Your task to perform on an android device: change text size in settings app Image 0: 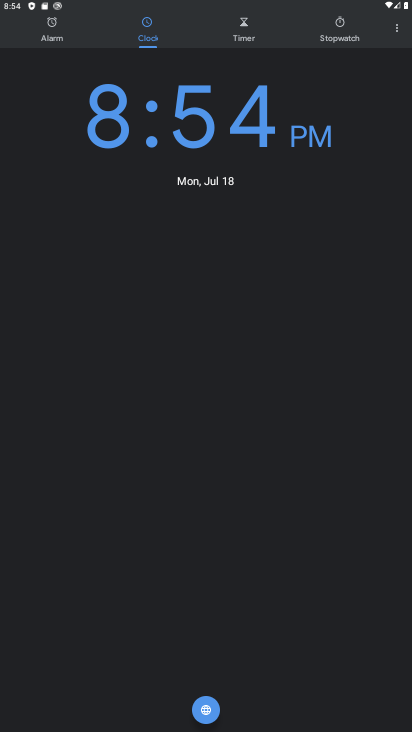
Step 0: press home button
Your task to perform on an android device: change text size in settings app Image 1: 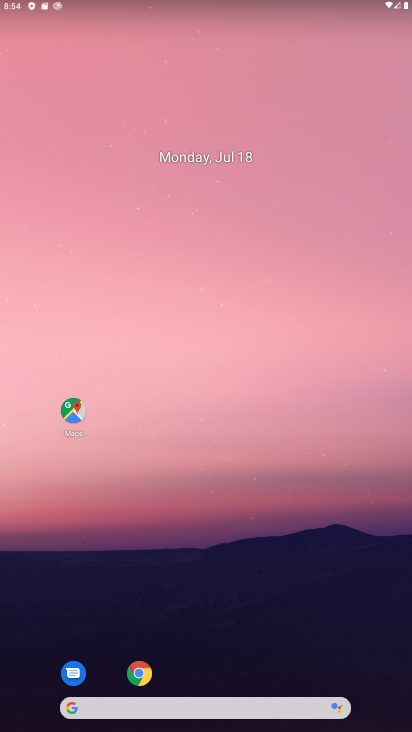
Step 1: drag from (220, 716) to (258, 167)
Your task to perform on an android device: change text size in settings app Image 2: 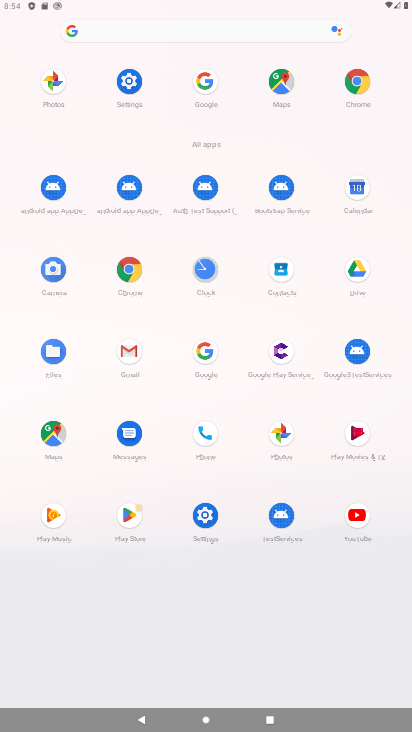
Step 2: click (209, 529)
Your task to perform on an android device: change text size in settings app Image 3: 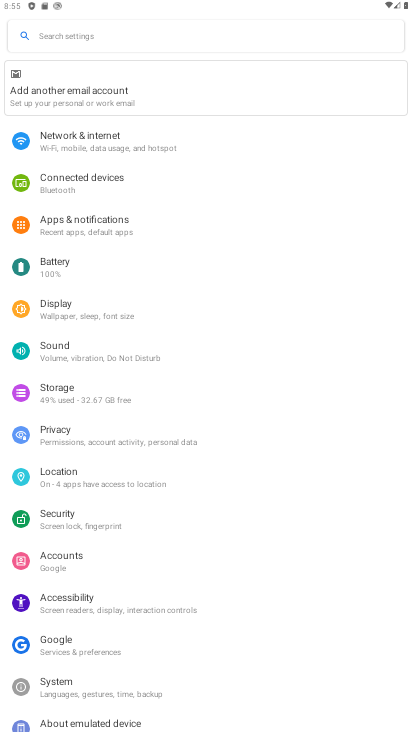
Step 3: click (62, 325)
Your task to perform on an android device: change text size in settings app Image 4: 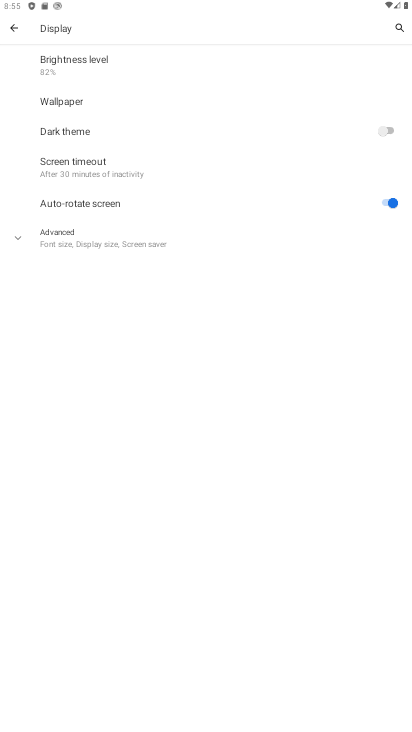
Step 4: click (121, 250)
Your task to perform on an android device: change text size in settings app Image 5: 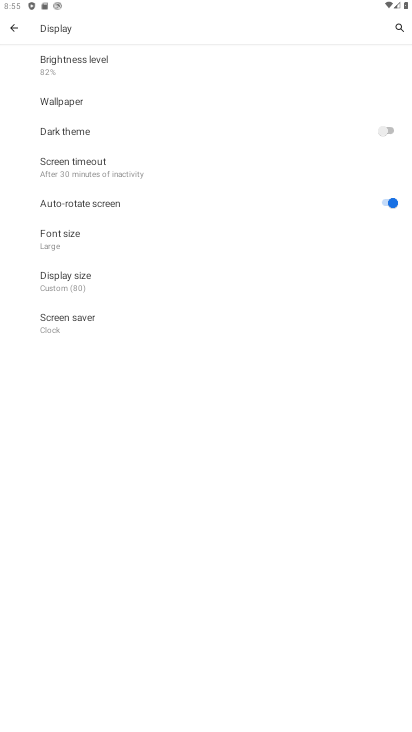
Step 5: click (88, 237)
Your task to perform on an android device: change text size in settings app Image 6: 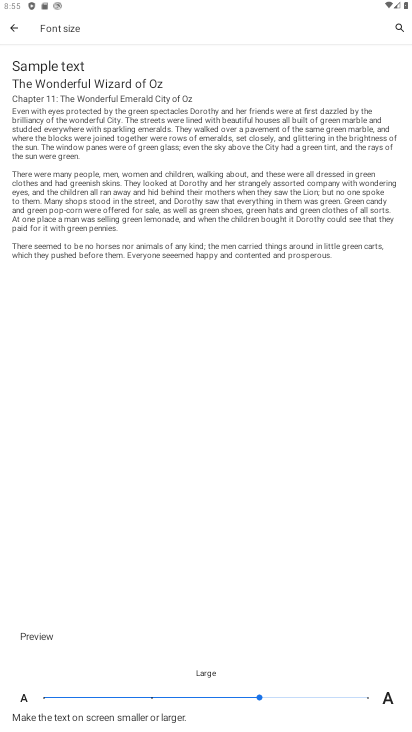
Step 6: click (366, 693)
Your task to perform on an android device: change text size in settings app Image 7: 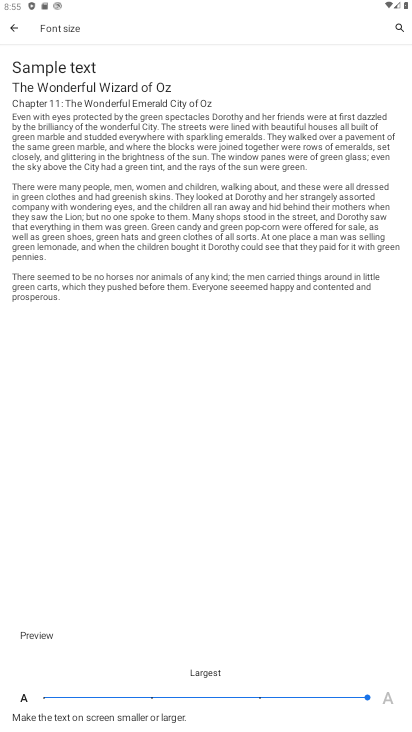
Step 7: task complete